Your task to perform on an android device: toggle airplane mode Image 0: 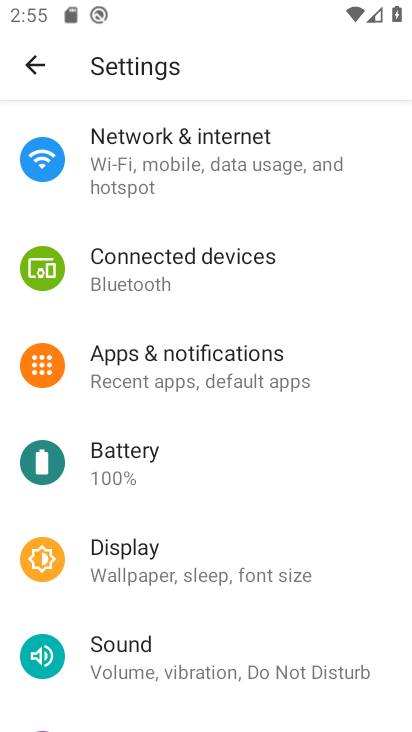
Step 0: press back button
Your task to perform on an android device: toggle airplane mode Image 1: 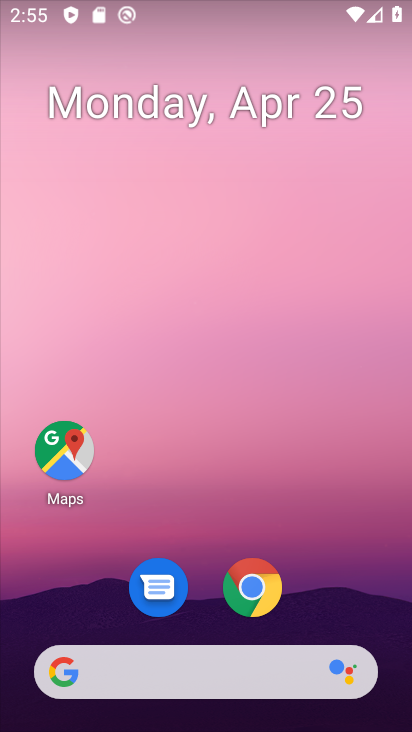
Step 1: drag from (82, 90) to (164, 487)
Your task to perform on an android device: toggle airplane mode Image 2: 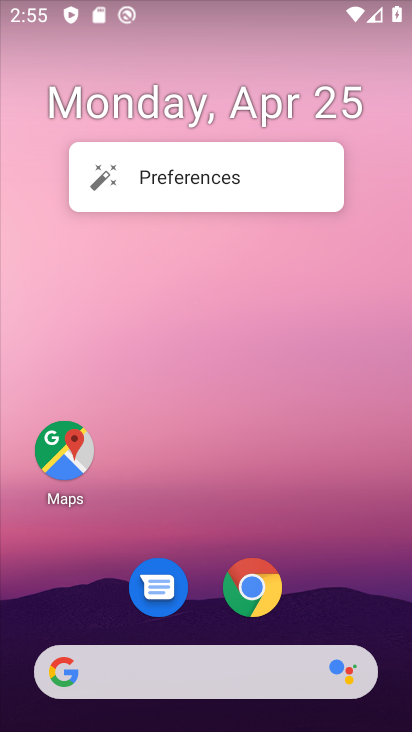
Step 2: drag from (119, 12) to (189, 396)
Your task to perform on an android device: toggle airplane mode Image 3: 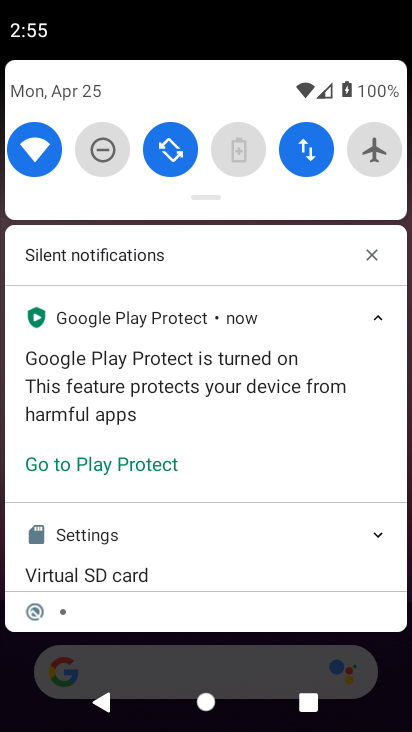
Step 3: click (377, 148)
Your task to perform on an android device: toggle airplane mode Image 4: 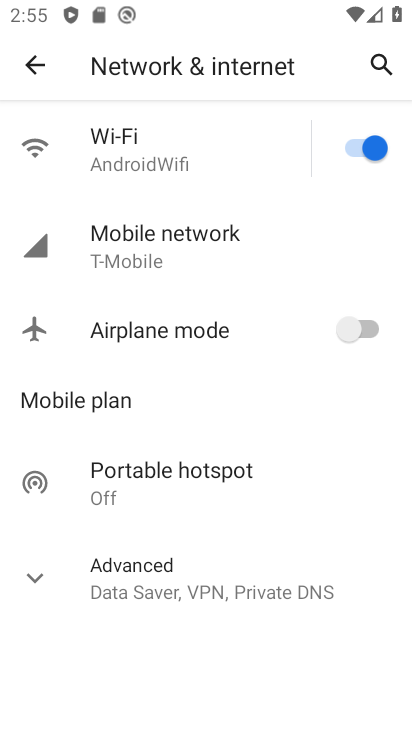
Step 4: click (371, 329)
Your task to perform on an android device: toggle airplane mode Image 5: 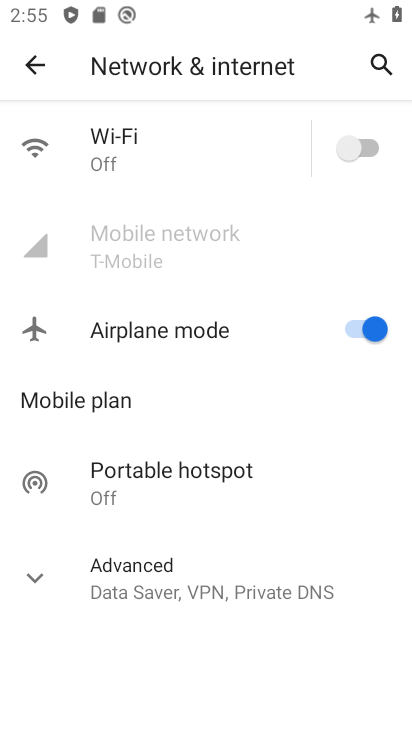
Step 5: task complete